Your task to perform on an android device: turn vacation reply on in the gmail app Image 0: 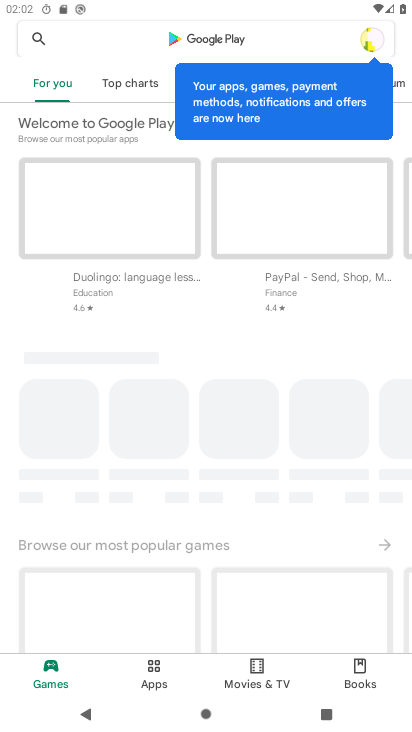
Step 0: press home button
Your task to perform on an android device: turn vacation reply on in the gmail app Image 1: 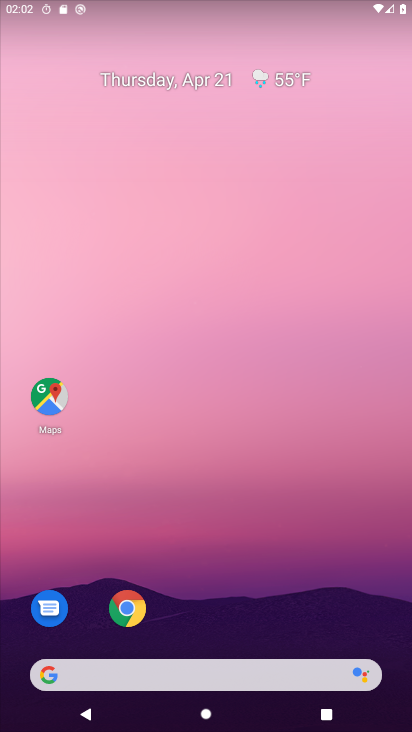
Step 1: drag from (195, 604) to (160, 60)
Your task to perform on an android device: turn vacation reply on in the gmail app Image 2: 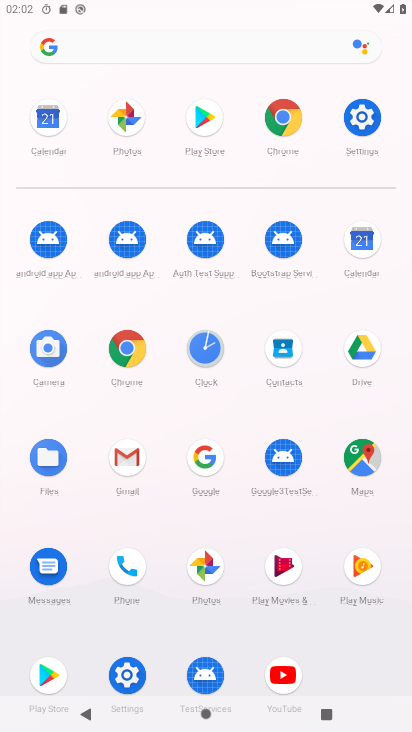
Step 2: click (127, 449)
Your task to perform on an android device: turn vacation reply on in the gmail app Image 3: 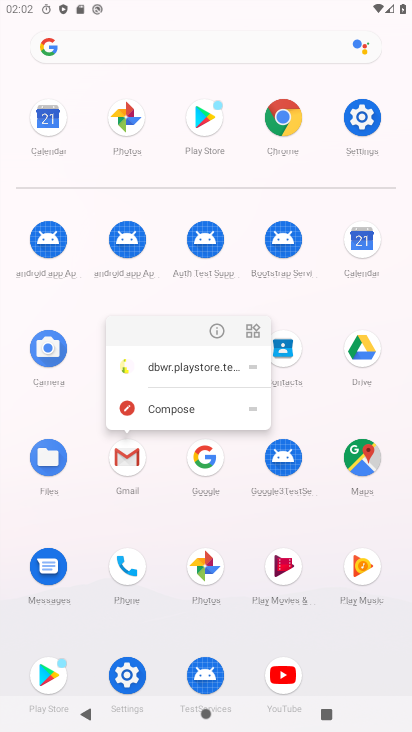
Step 3: click (127, 457)
Your task to perform on an android device: turn vacation reply on in the gmail app Image 4: 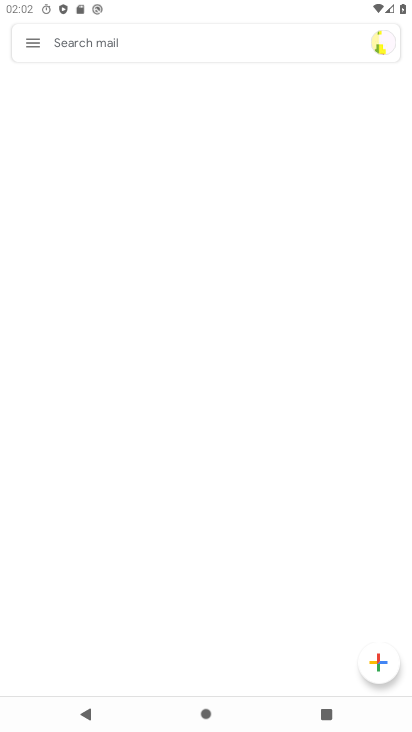
Step 4: click (35, 45)
Your task to perform on an android device: turn vacation reply on in the gmail app Image 5: 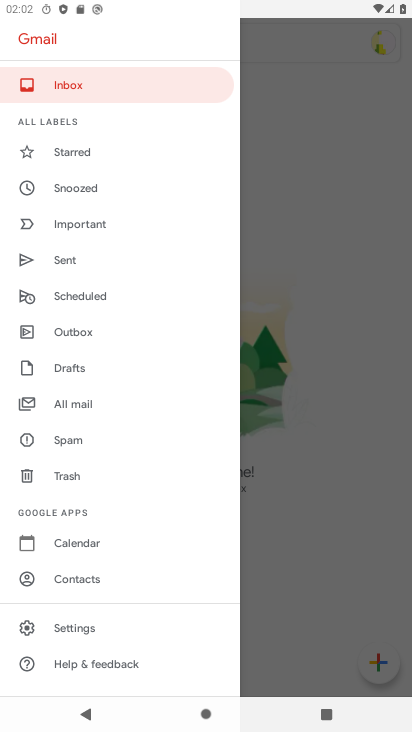
Step 5: click (70, 624)
Your task to perform on an android device: turn vacation reply on in the gmail app Image 6: 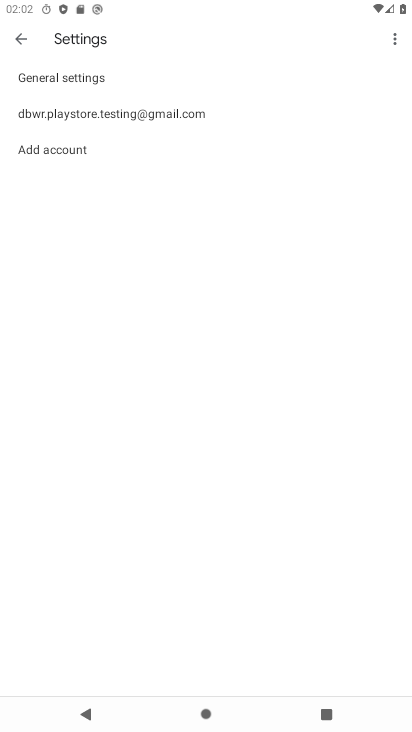
Step 6: click (114, 109)
Your task to perform on an android device: turn vacation reply on in the gmail app Image 7: 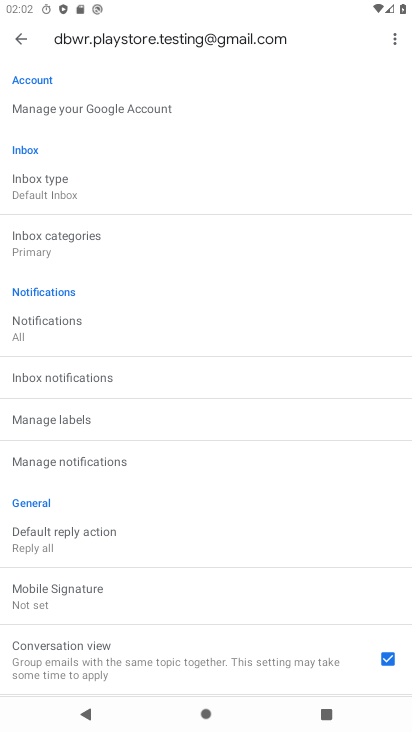
Step 7: drag from (120, 556) to (138, 261)
Your task to perform on an android device: turn vacation reply on in the gmail app Image 8: 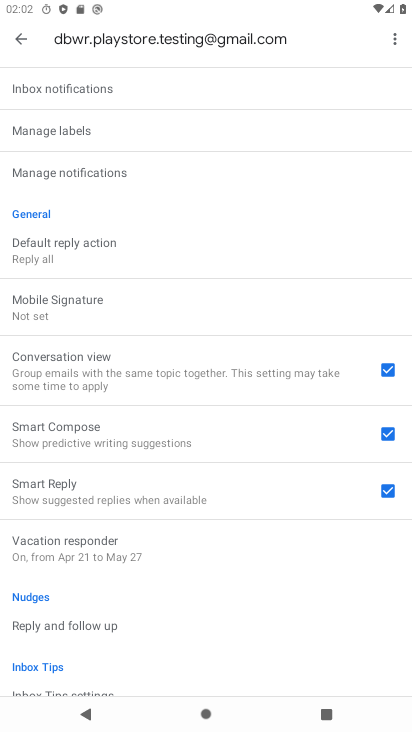
Step 8: click (81, 545)
Your task to perform on an android device: turn vacation reply on in the gmail app Image 9: 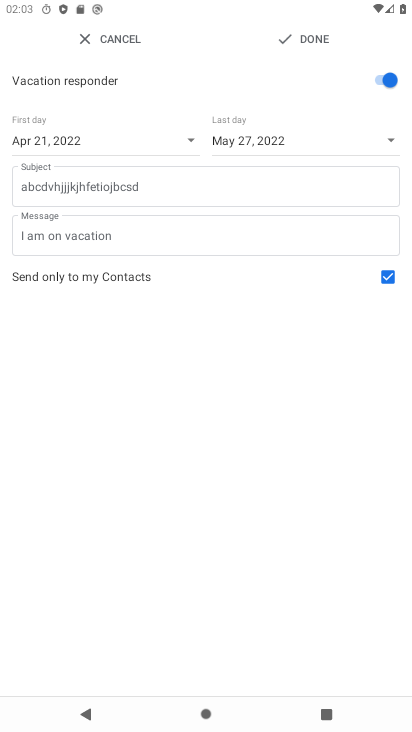
Step 9: task complete